Your task to perform on an android device: check data usage Image 0: 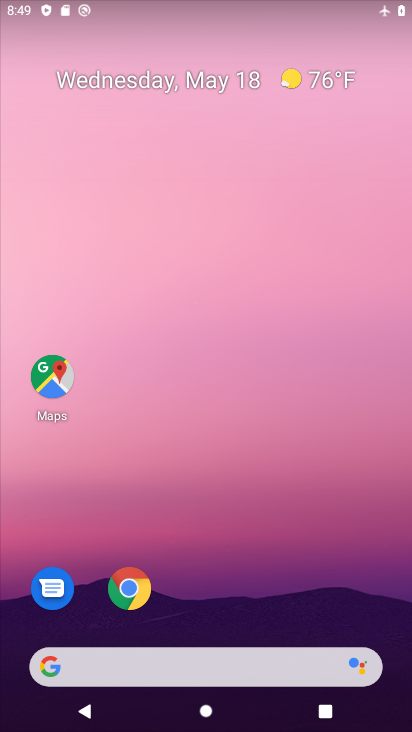
Step 0: drag from (305, 618) to (250, 228)
Your task to perform on an android device: check data usage Image 1: 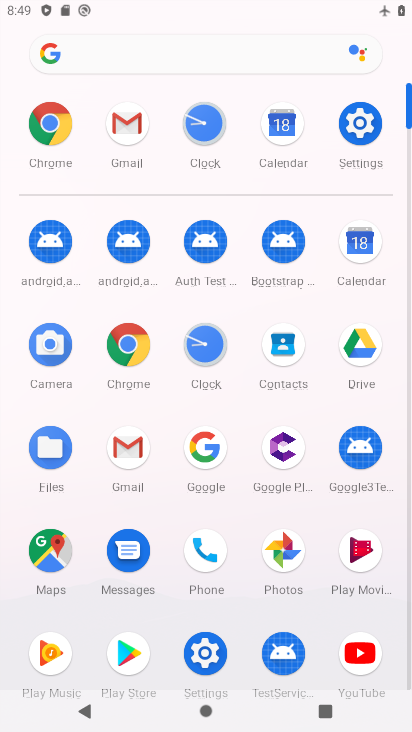
Step 1: click (362, 148)
Your task to perform on an android device: check data usage Image 2: 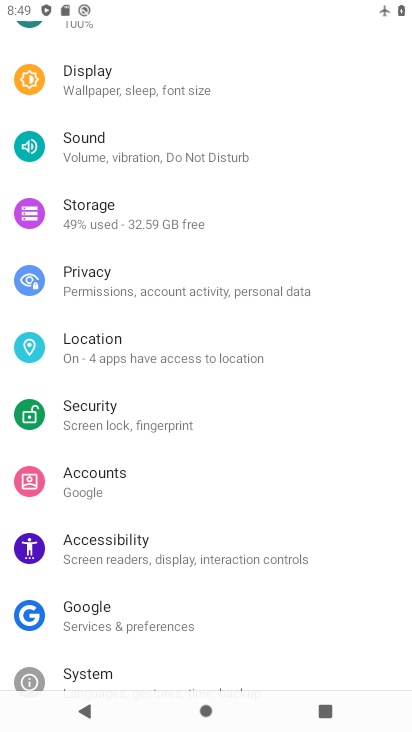
Step 2: drag from (175, 207) to (181, 386)
Your task to perform on an android device: check data usage Image 3: 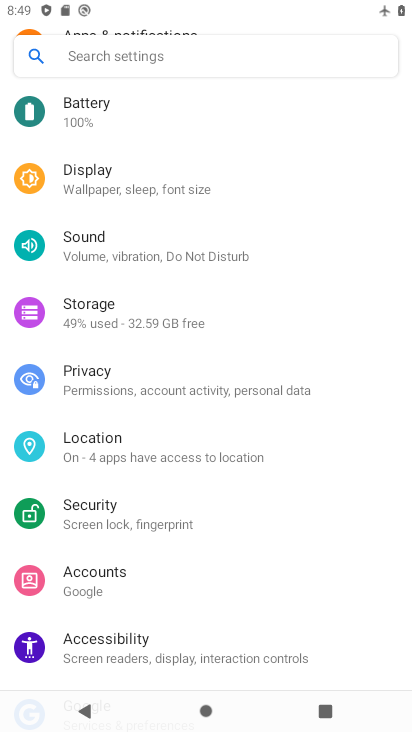
Step 3: drag from (204, 202) to (270, 555)
Your task to perform on an android device: check data usage Image 4: 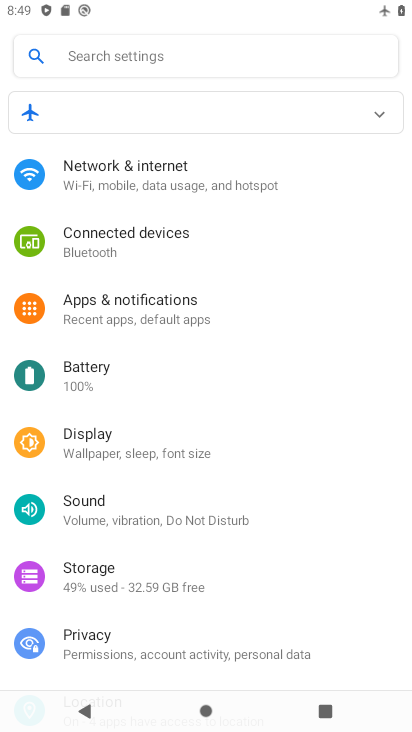
Step 4: click (239, 173)
Your task to perform on an android device: check data usage Image 5: 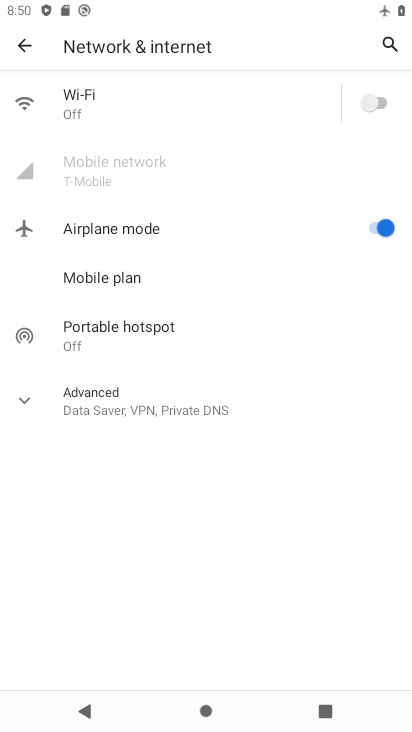
Step 5: click (378, 213)
Your task to perform on an android device: check data usage Image 6: 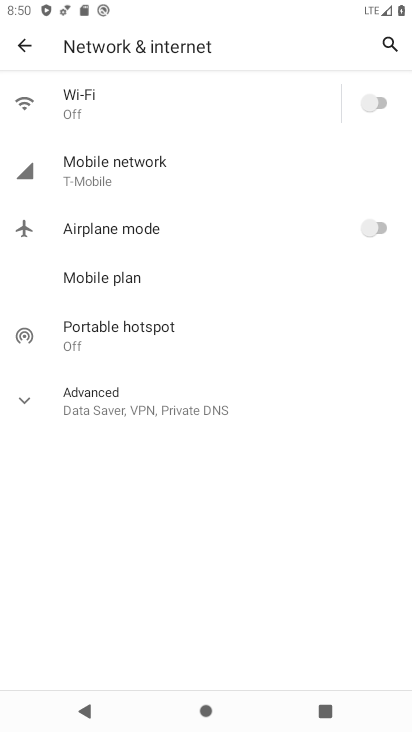
Step 6: click (379, 101)
Your task to perform on an android device: check data usage Image 7: 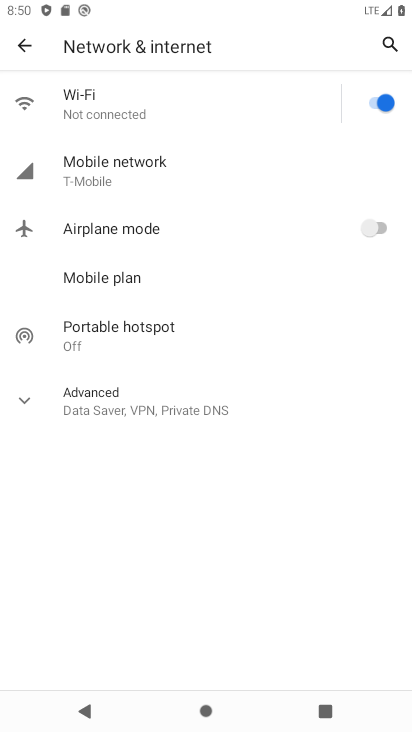
Step 7: click (248, 163)
Your task to perform on an android device: check data usage Image 8: 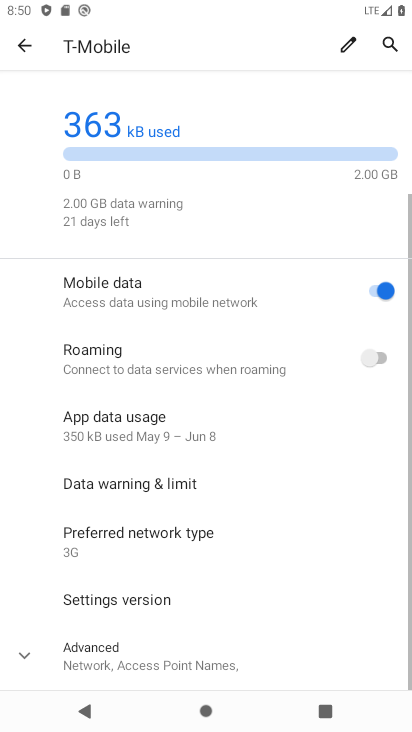
Step 8: task complete